Your task to perform on an android device: add a label to a message in the gmail app Image 0: 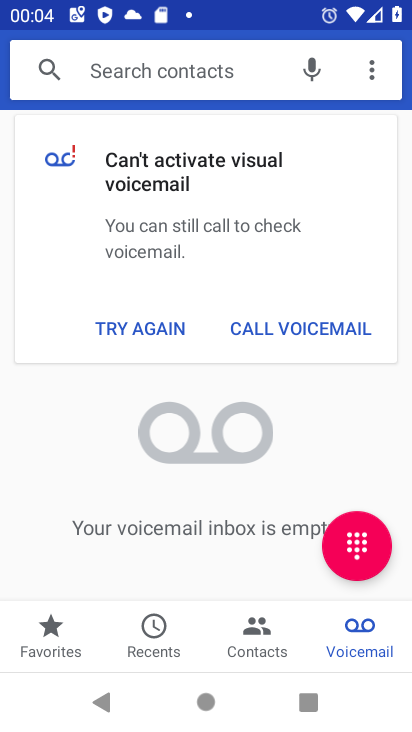
Step 0: press home button
Your task to perform on an android device: add a label to a message in the gmail app Image 1: 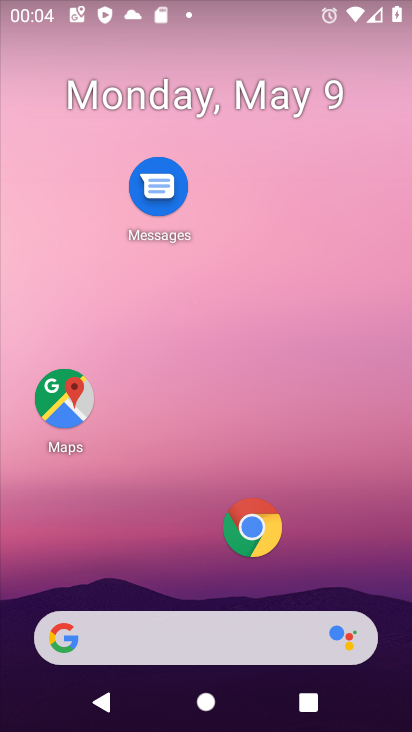
Step 1: drag from (168, 541) to (206, 53)
Your task to perform on an android device: add a label to a message in the gmail app Image 2: 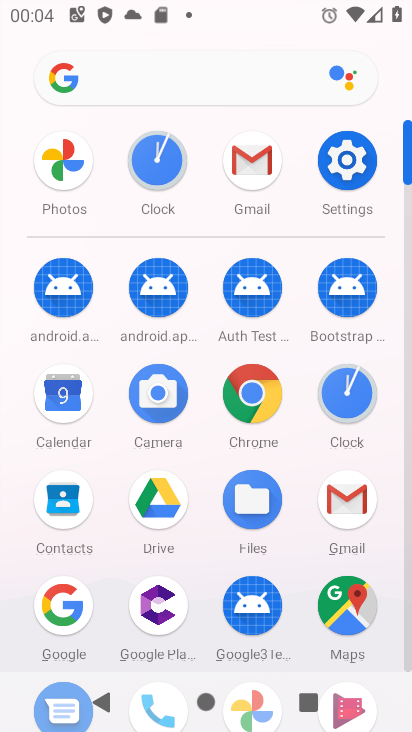
Step 2: click (243, 167)
Your task to perform on an android device: add a label to a message in the gmail app Image 3: 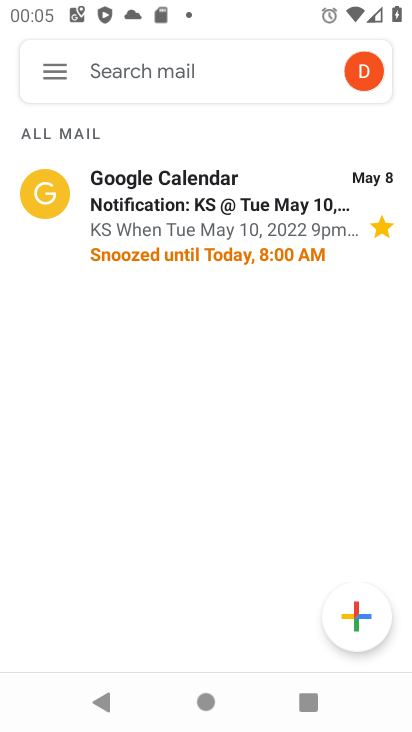
Step 3: click (172, 191)
Your task to perform on an android device: add a label to a message in the gmail app Image 4: 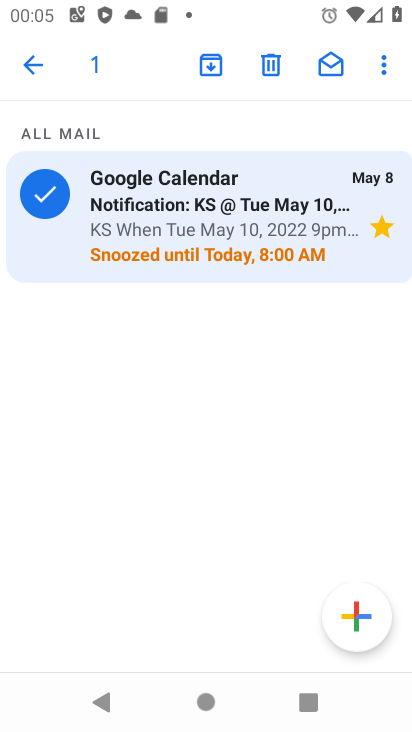
Step 4: click (375, 71)
Your task to perform on an android device: add a label to a message in the gmail app Image 5: 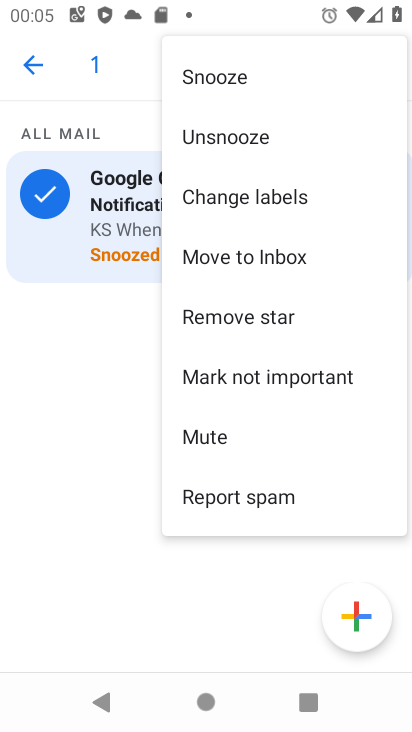
Step 5: click (256, 197)
Your task to perform on an android device: add a label to a message in the gmail app Image 6: 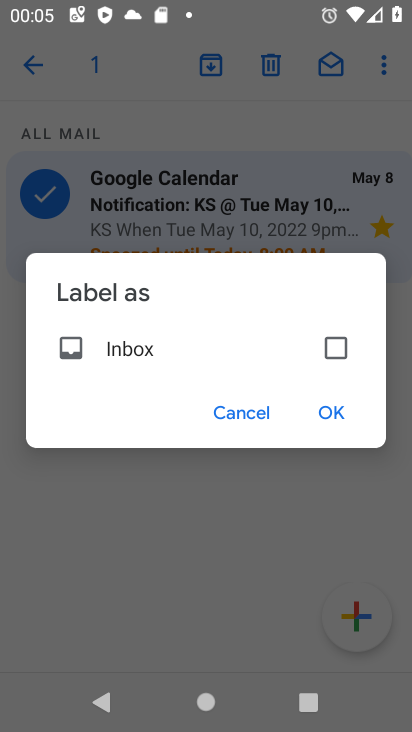
Step 6: click (344, 404)
Your task to perform on an android device: add a label to a message in the gmail app Image 7: 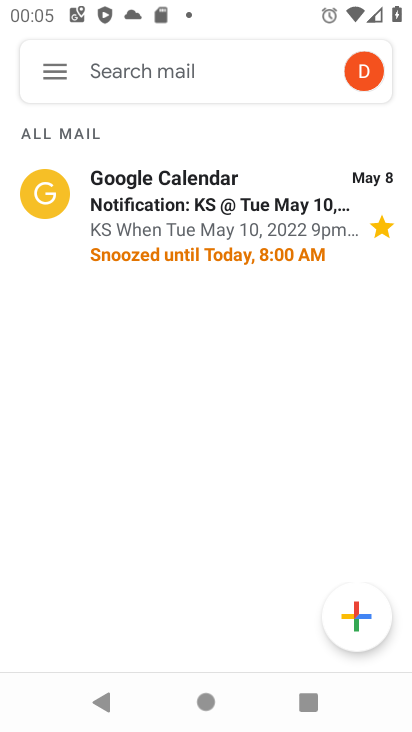
Step 7: task complete